Your task to perform on an android device: toggle priority inbox in the gmail app Image 0: 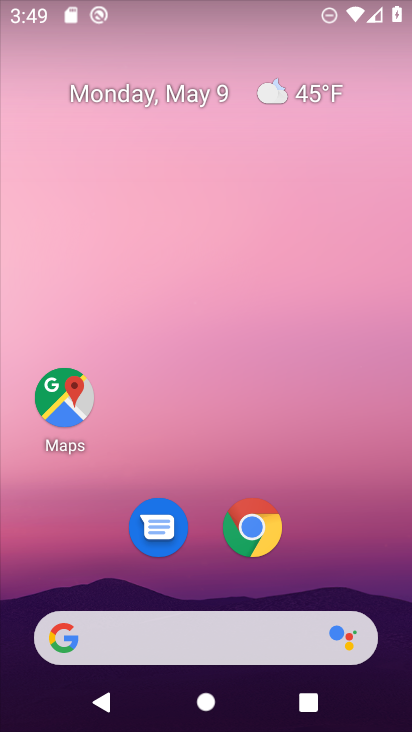
Step 0: drag from (394, 587) to (349, 304)
Your task to perform on an android device: toggle priority inbox in the gmail app Image 1: 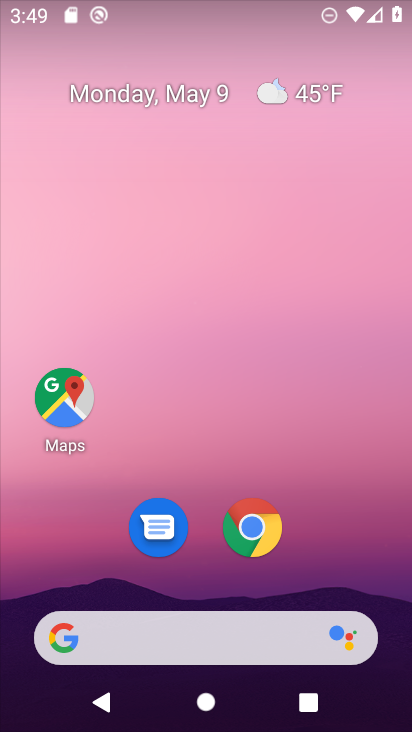
Step 1: drag from (366, 583) to (266, 201)
Your task to perform on an android device: toggle priority inbox in the gmail app Image 2: 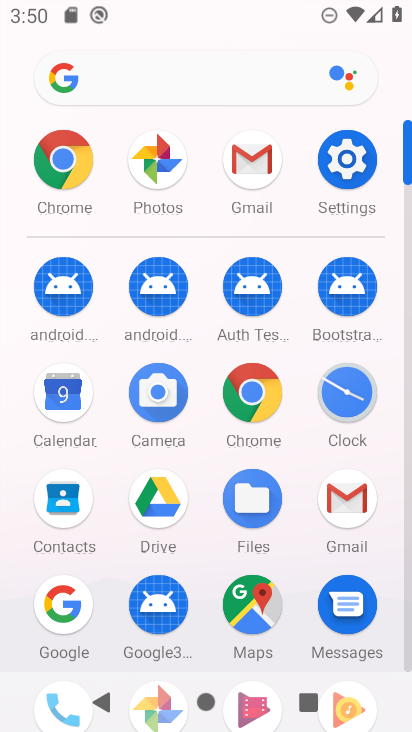
Step 2: click (258, 180)
Your task to perform on an android device: toggle priority inbox in the gmail app Image 3: 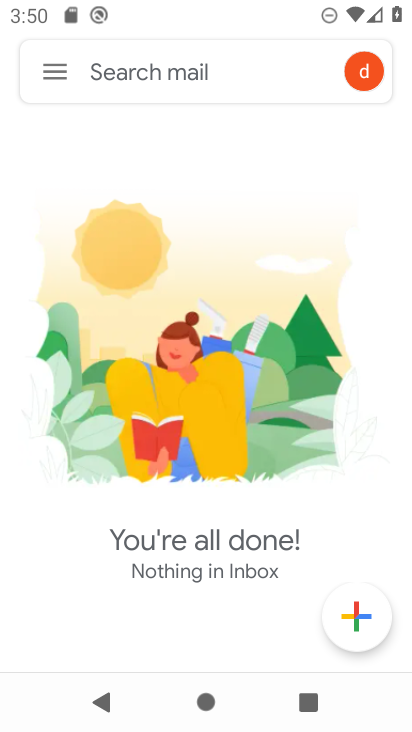
Step 3: click (58, 74)
Your task to perform on an android device: toggle priority inbox in the gmail app Image 4: 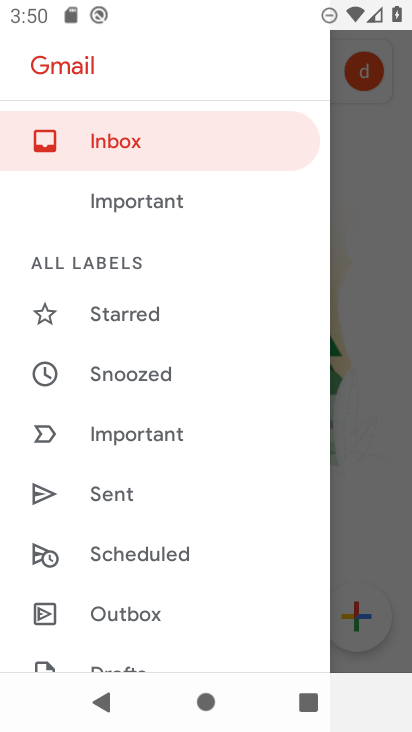
Step 4: drag from (221, 658) to (308, 37)
Your task to perform on an android device: toggle priority inbox in the gmail app Image 5: 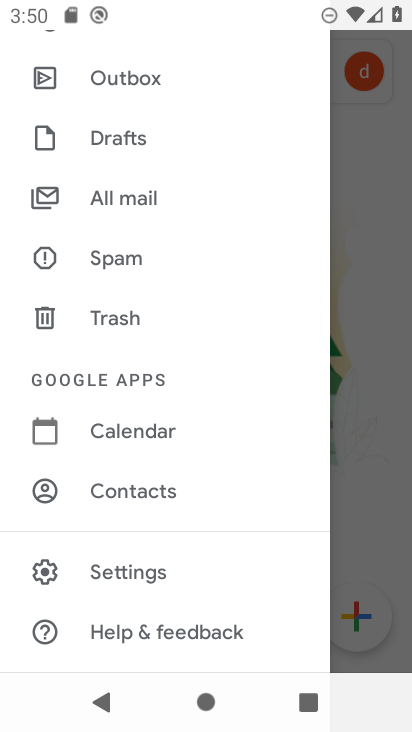
Step 5: click (179, 575)
Your task to perform on an android device: toggle priority inbox in the gmail app Image 6: 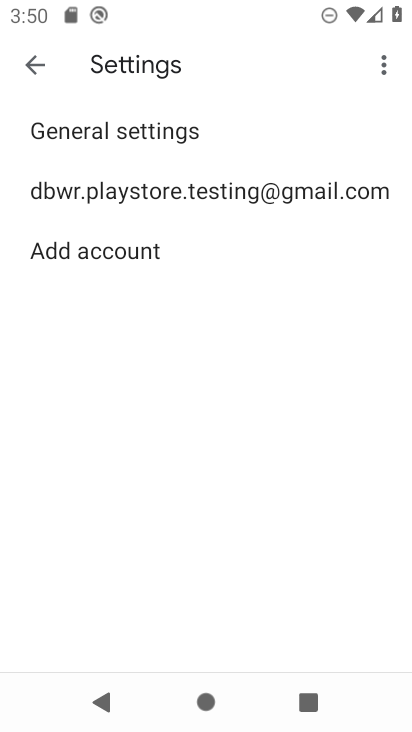
Step 6: click (289, 192)
Your task to perform on an android device: toggle priority inbox in the gmail app Image 7: 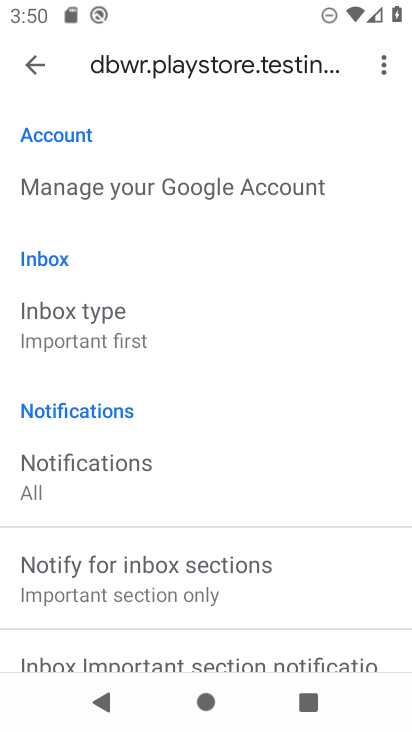
Step 7: click (278, 330)
Your task to perform on an android device: toggle priority inbox in the gmail app Image 8: 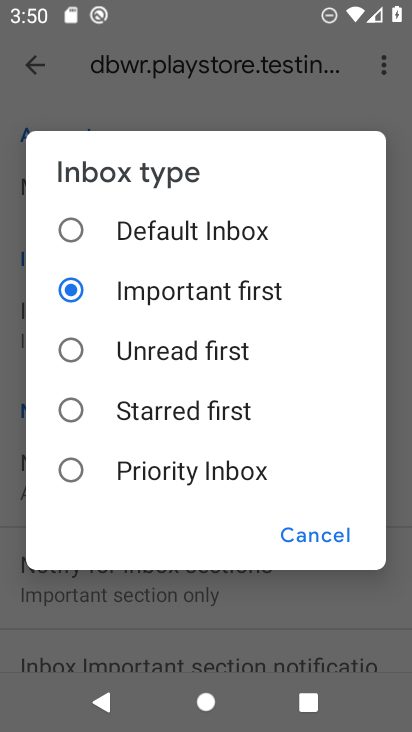
Step 8: click (237, 471)
Your task to perform on an android device: toggle priority inbox in the gmail app Image 9: 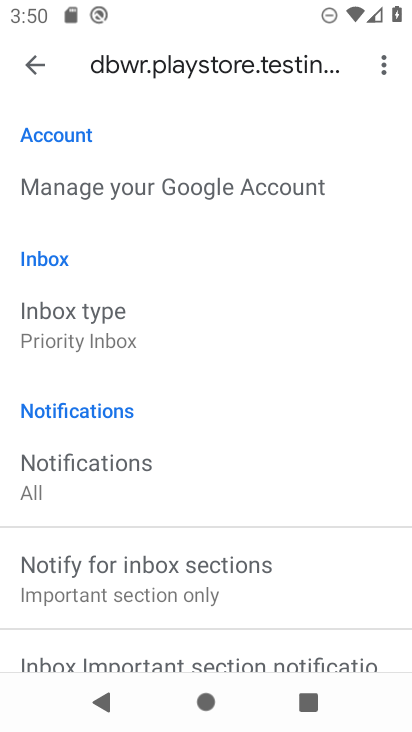
Step 9: task complete